Your task to perform on an android device: What's the top post on reddit today? Image 0: 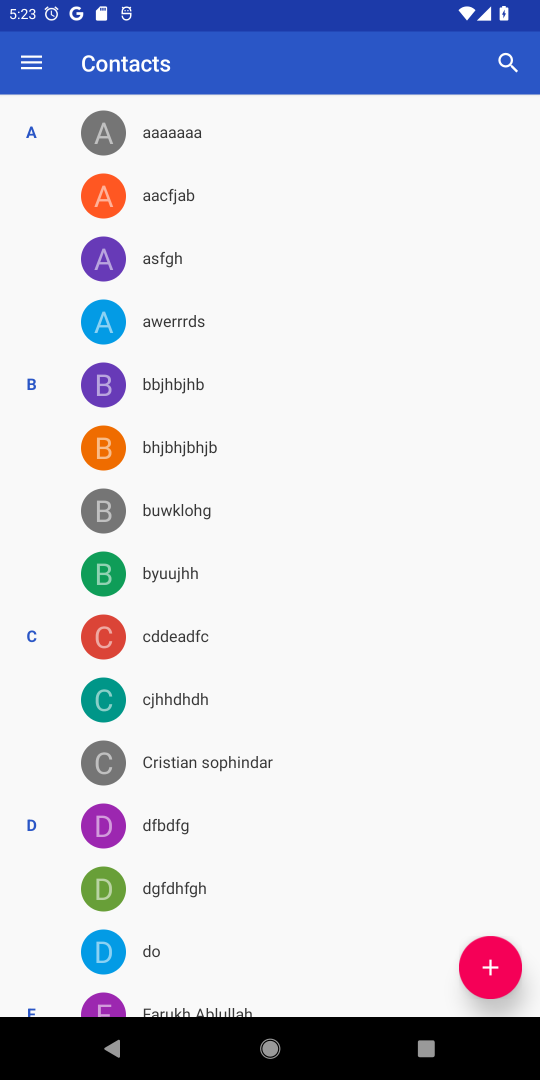
Step 0: press home button
Your task to perform on an android device: What's the top post on reddit today? Image 1: 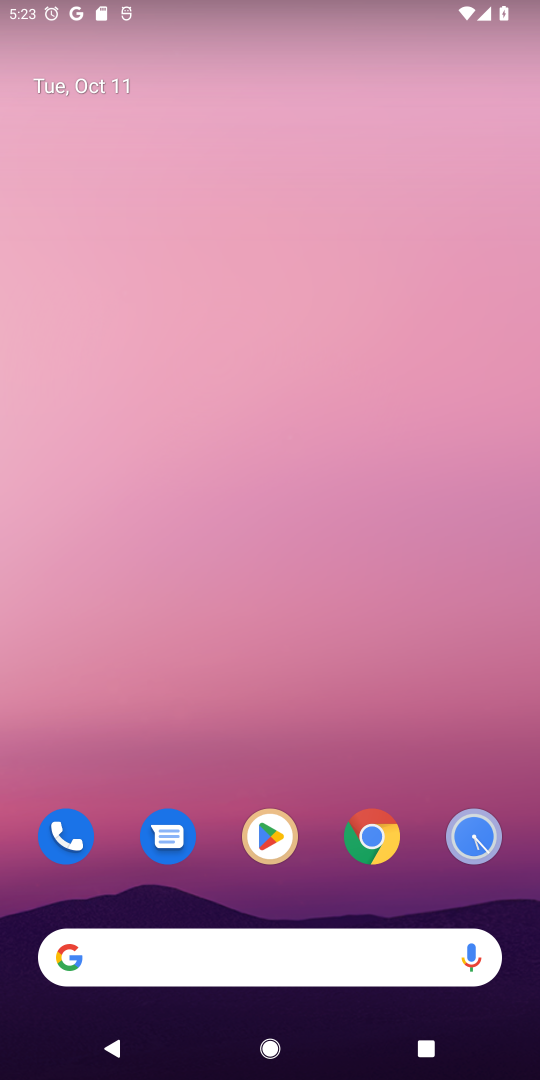
Step 1: click (252, 957)
Your task to perform on an android device: What's the top post on reddit today? Image 2: 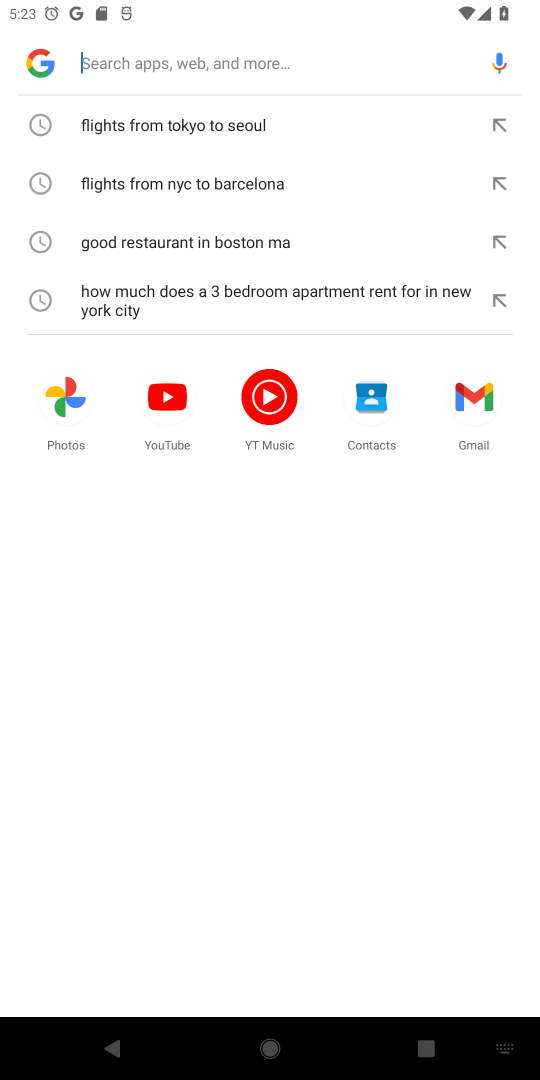
Step 2: type "What's the top post on reddit today"
Your task to perform on an android device: What's the top post on reddit today? Image 3: 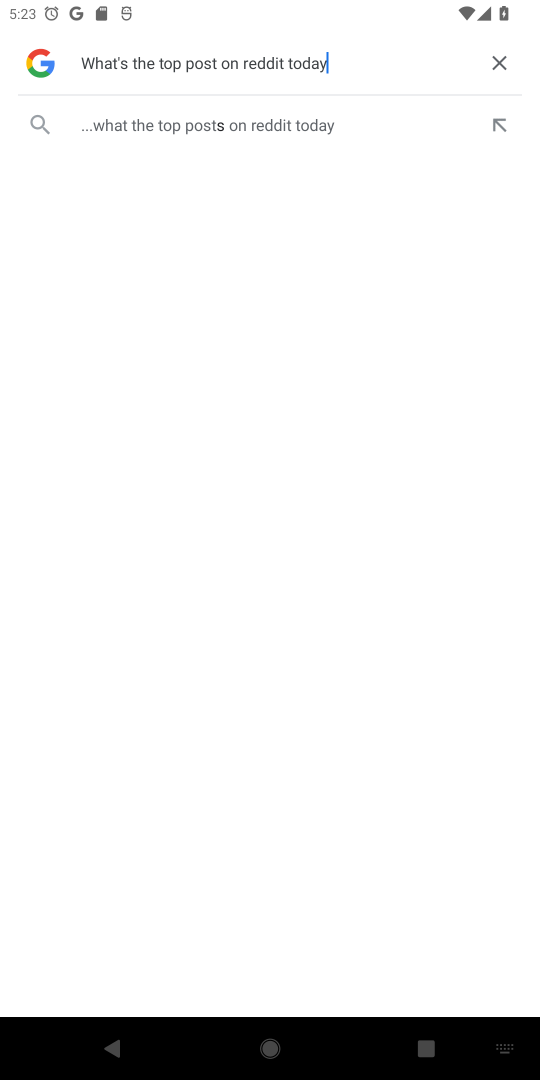
Step 3: click (372, 131)
Your task to perform on an android device: What's the top post on reddit today? Image 4: 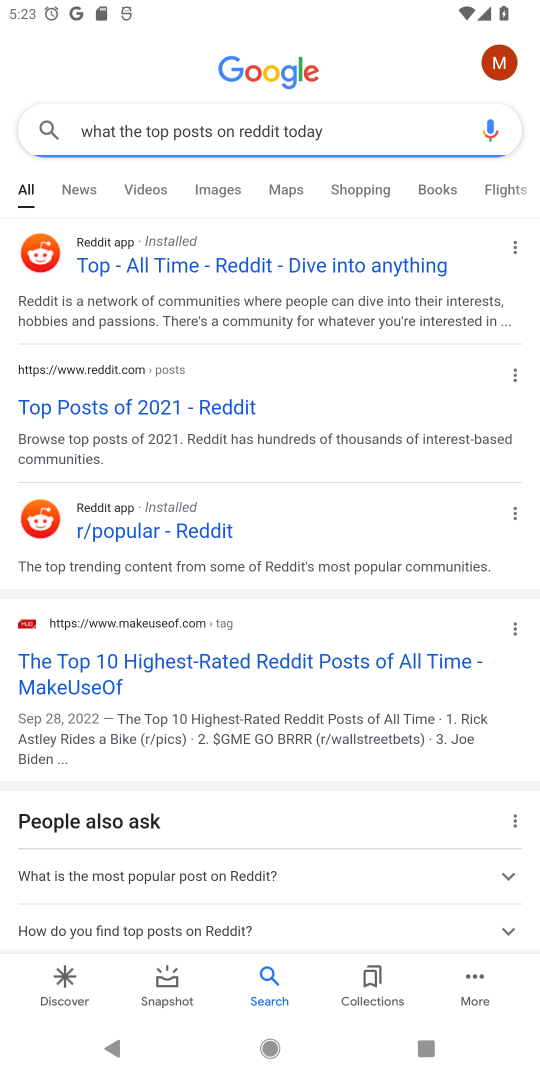
Step 4: task complete